Your task to perform on an android device: See recent photos Image 0: 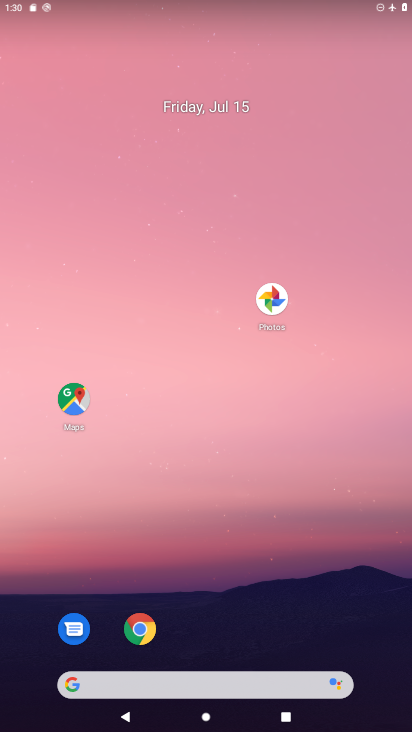
Step 0: drag from (264, 681) to (227, 359)
Your task to perform on an android device: See recent photos Image 1: 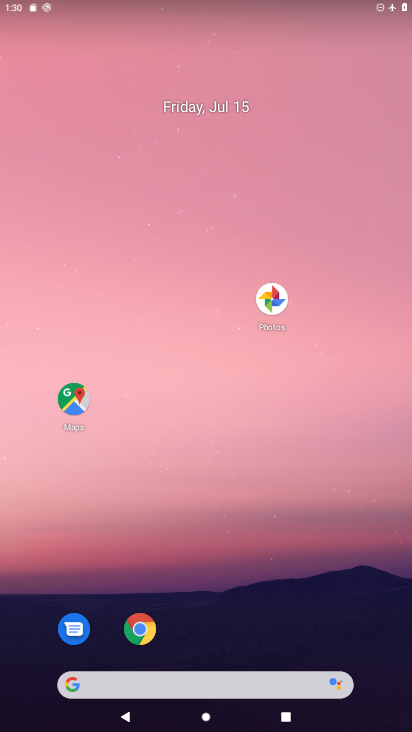
Step 1: drag from (195, 642) to (230, 392)
Your task to perform on an android device: See recent photos Image 2: 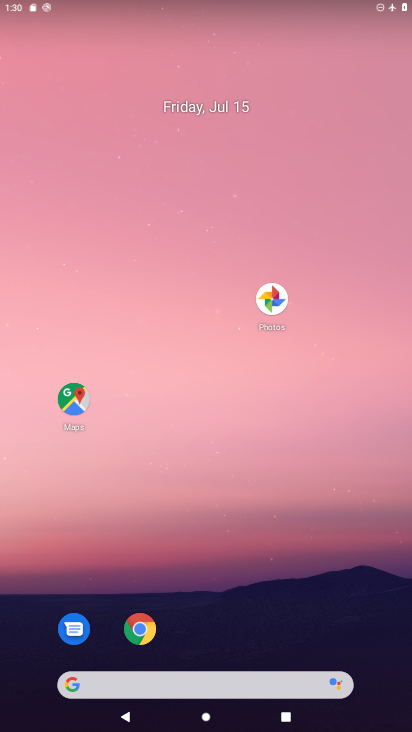
Step 2: drag from (211, 587) to (209, 123)
Your task to perform on an android device: See recent photos Image 3: 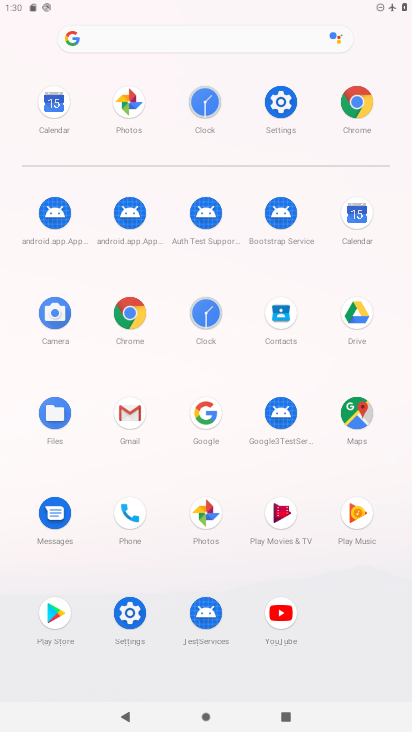
Step 3: click (208, 509)
Your task to perform on an android device: See recent photos Image 4: 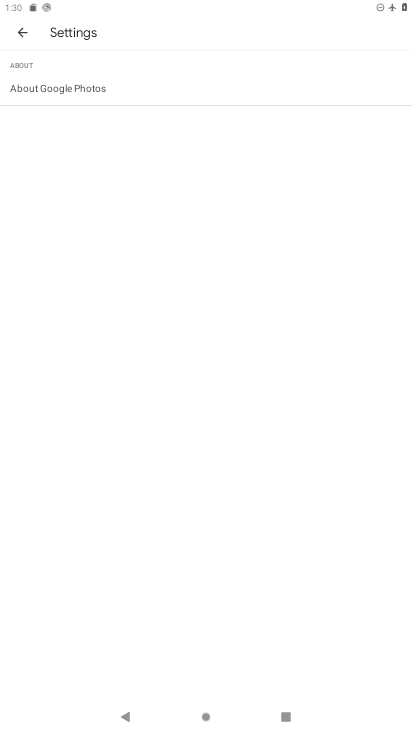
Step 4: click (27, 35)
Your task to perform on an android device: See recent photos Image 5: 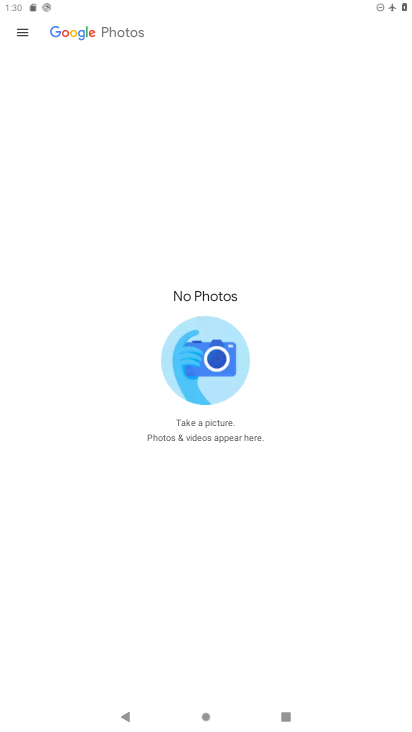
Step 5: task complete